Your task to perform on an android device: change the clock display to digital Image 0: 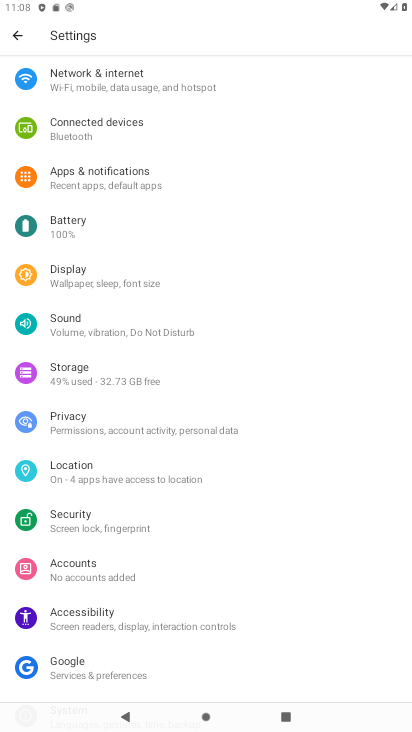
Step 0: press home button
Your task to perform on an android device: change the clock display to digital Image 1: 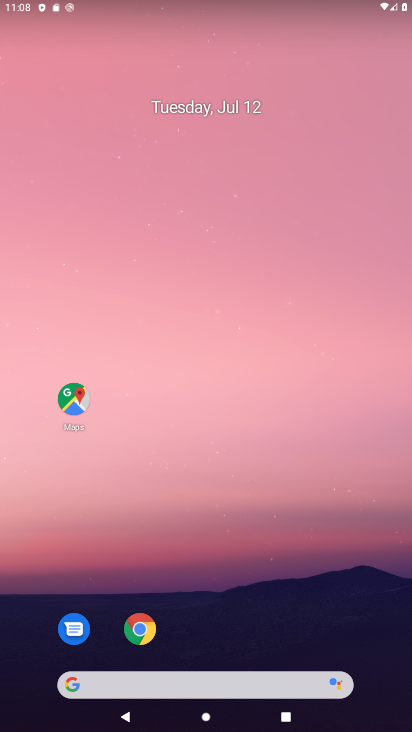
Step 1: drag from (220, 592) to (245, 0)
Your task to perform on an android device: change the clock display to digital Image 2: 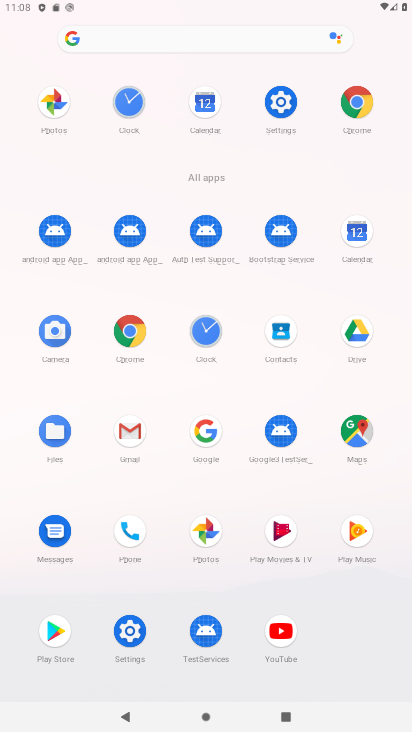
Step 2: click (212, 326)
Your task to perform on an android device: change the clock display to digital Image 3: 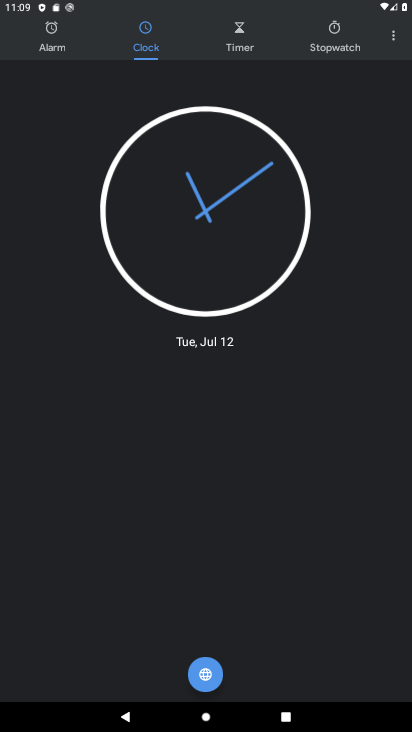
Step 3: click (390, 42)
Your task to perform on an android device: change the clock display to digital Image 4: 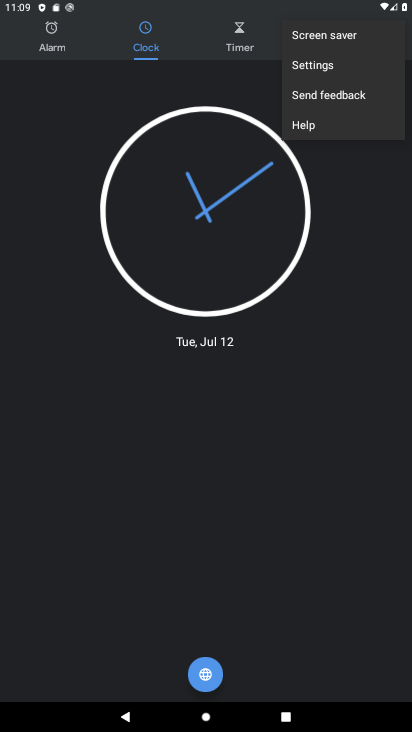
Step 4: click (294, 75)
Your task to perform on an android device: change the clock display to digital Image 5: 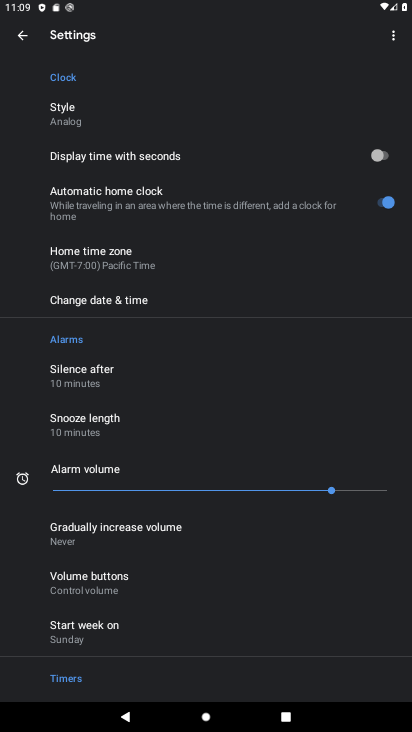
Step 5: click (60, 107)
Your task to perform on an android device: change the clock display to digital Image 6: 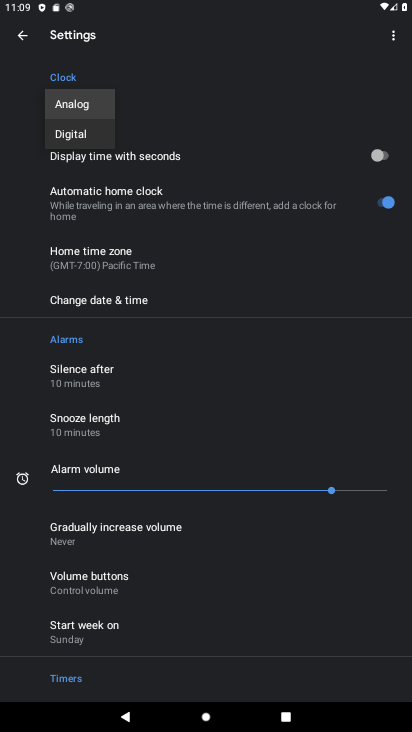
Step 6: click (66, 140)
Your task to perform on an android device: change the clock display to digital Image 7: 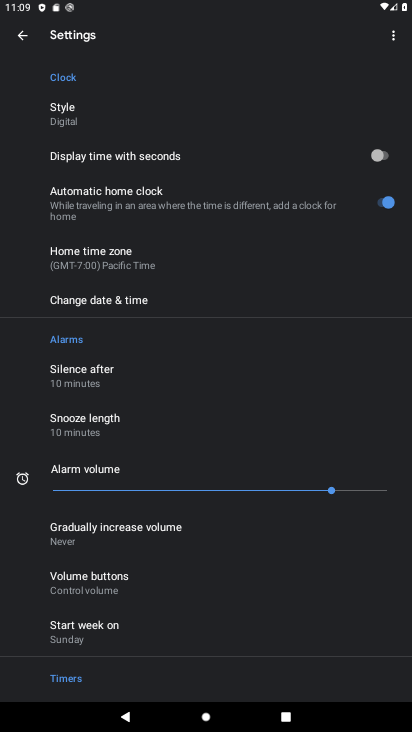
Step 7: task complete